Your task to perform on an android device: change the clock display to digital Image 0: 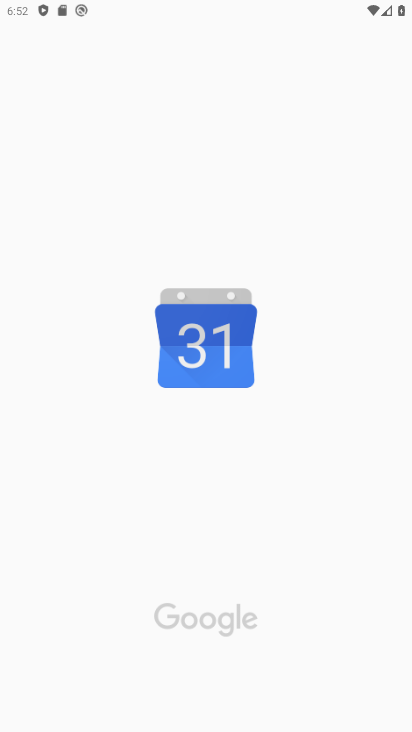
Step 0: press home button
Your task to perform on an android device: change the clock display to digital Image 1: 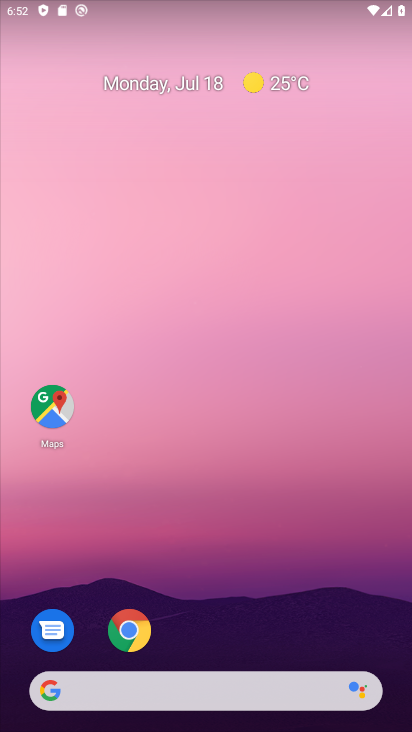
Step 1: drag from (226, 698) to (291, 149)
Your task to perform on an android device: change the clock display to digital Image 2: 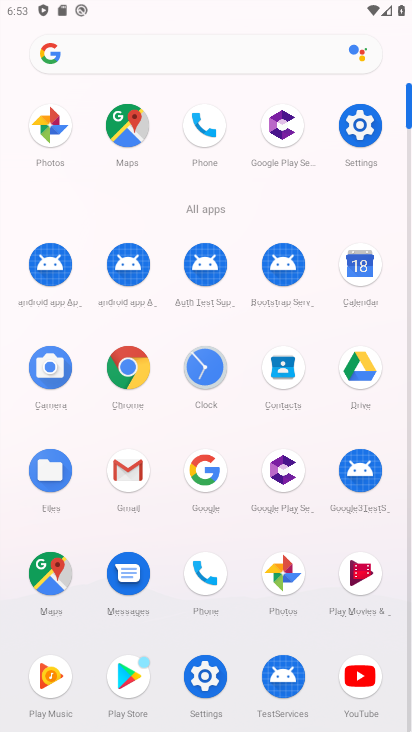
Step 2: click (230, 371)
Your task to perform on an android device: change the clock display to digital Image 3: 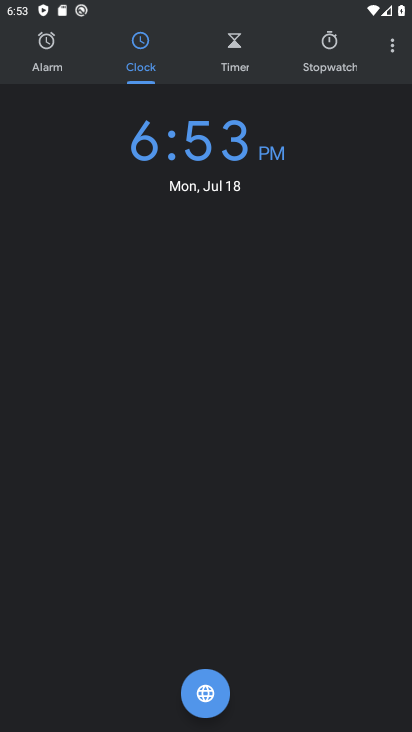
Step 3: click (391, 39)
Your task to perform on an android device: change the clock display to digital Image 4: 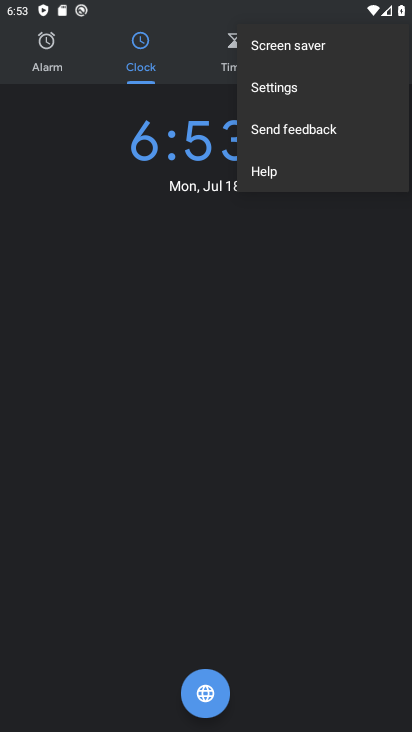
Step 4: click (296, 86)
Your task to perform on an android device: change the clock display to digital Image 5: 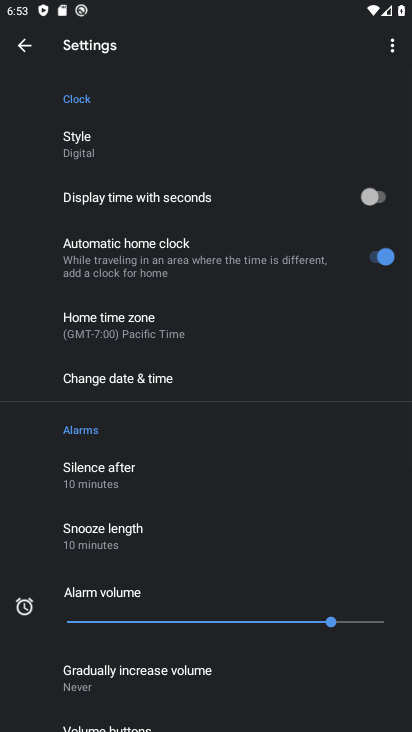
Step 5: click (75, 158)
Your task to perform on an android device: change the clock display to digital Image 6: 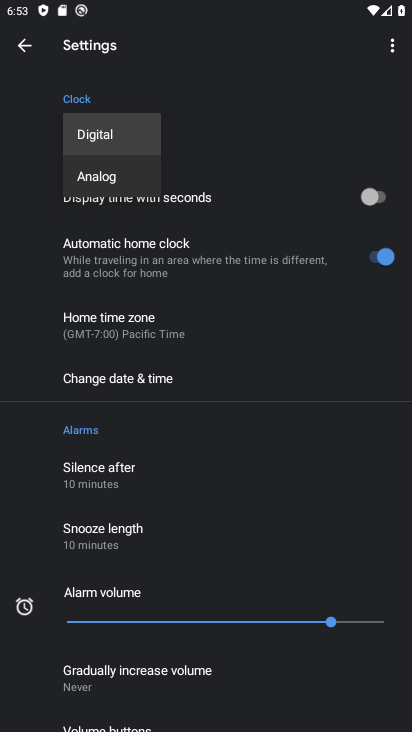
Step 6: click (109, 141)
Your task to perform on an android device: change the clock display to digital Image 7: 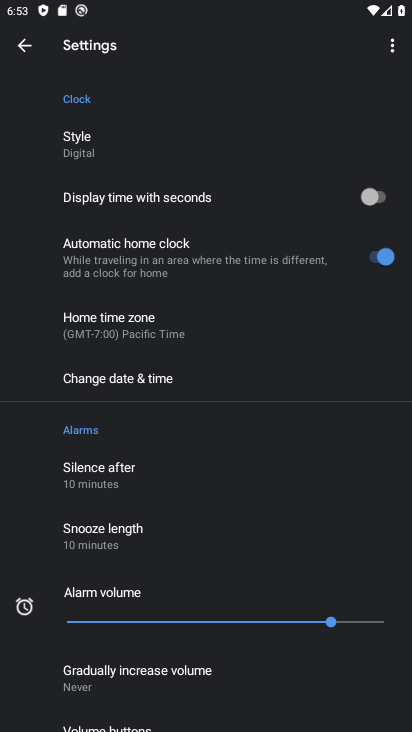
Step 7: task complete